Your task to perform on an android device: Open the stopwatch Image 0: 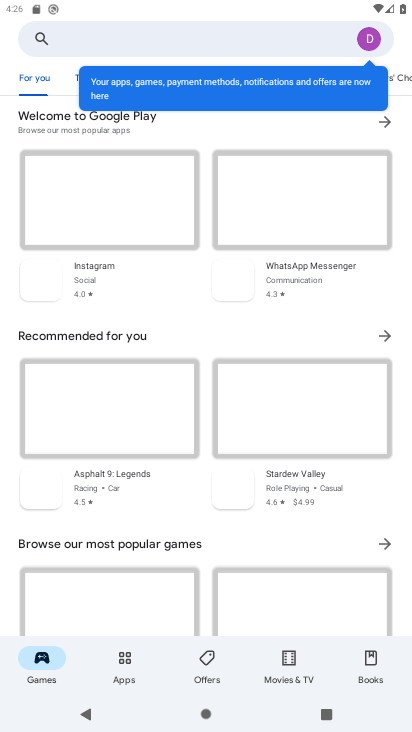
Step 0: press home button
Your task to perform on an android device: Open the stopwatch Image 1: 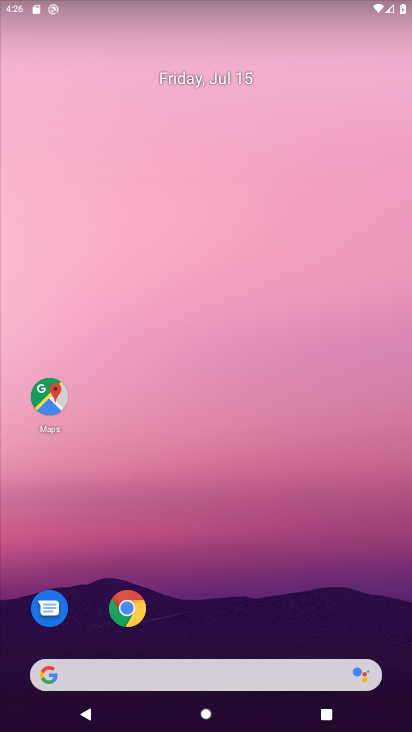
Step 1: drag from (198, 501) to (239, 38)
Your task to perform on an android device: Open the stopwatch Image 2: 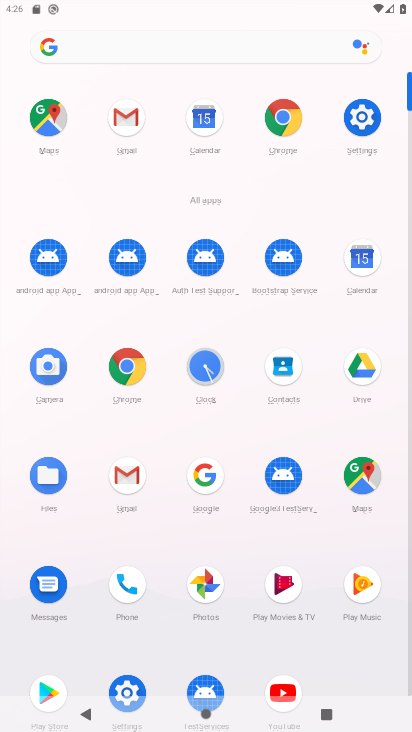
Step 2: click (214, 363)
Your task to perform on an android device: Open the stopwatch Image 3: 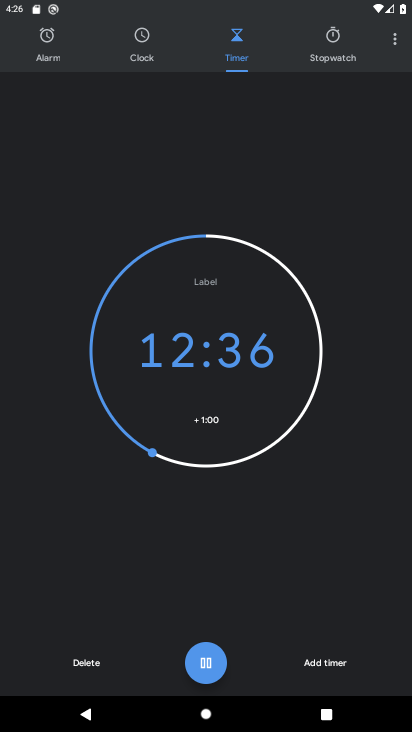
Step 3: click (340, 55)
Your task to perform on an android device: Open the stopwatch Image 4: 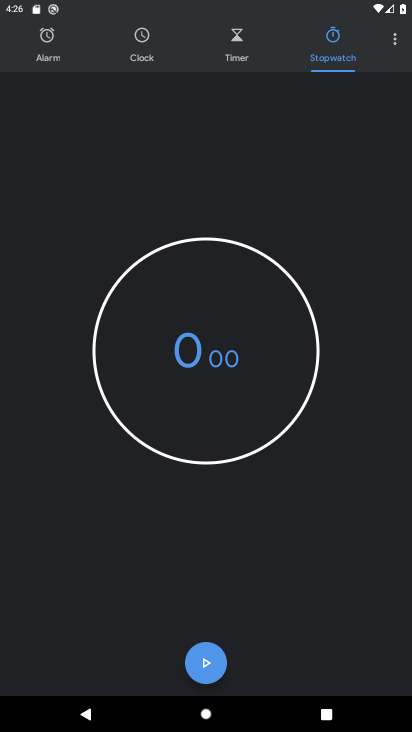
Step 4: click (209, 675)
Your task to perform on an android device: Open the stopwatch Image 5: 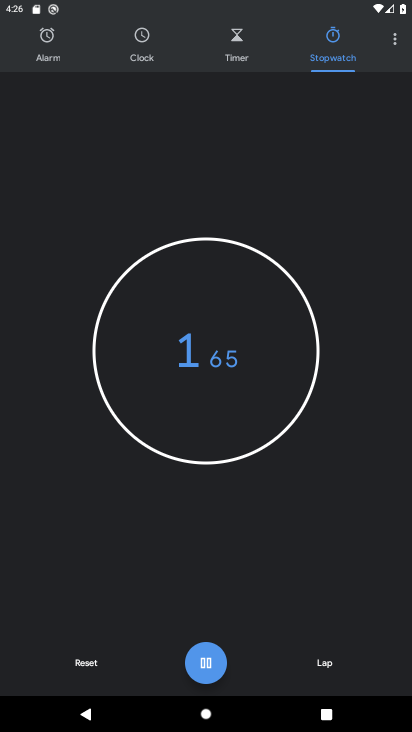
Step 5: task complete